Your task to perform on an android device: Go to network settings Image 0: 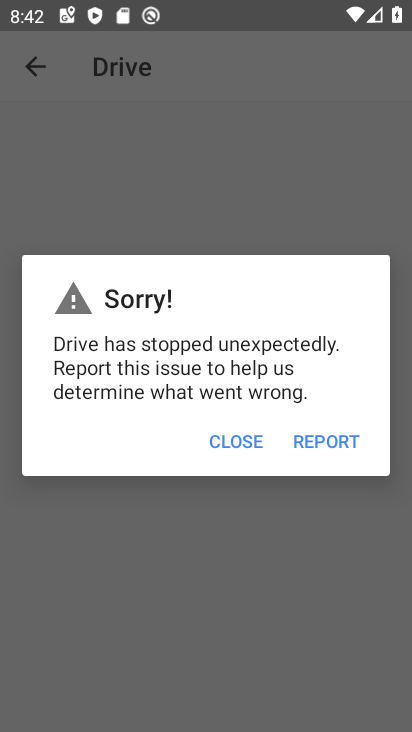
Step 0: press home button
Your task to perform on an android device: Go to network settings Image 1: 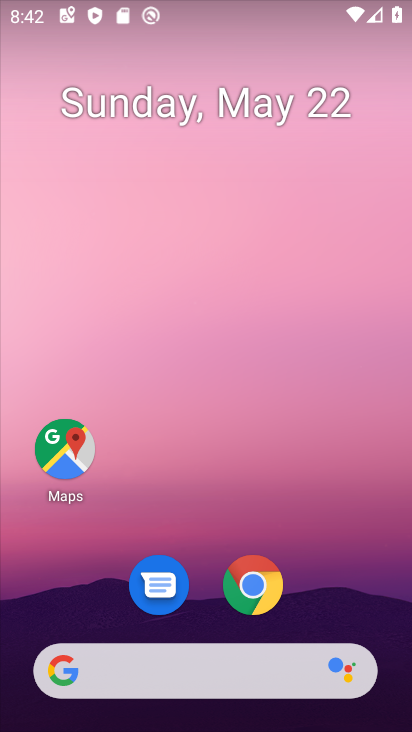
Step 1: drag from (240, 492) to (200, 17)
Your task to perform on an android device: Go to network settings Image 2: 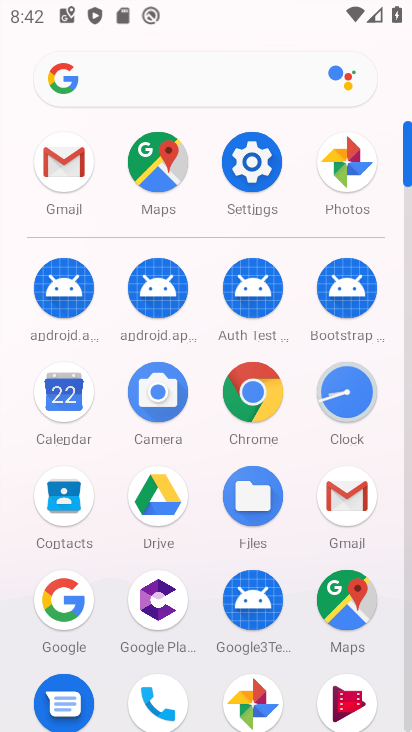
Step 2: click (249, 152)
Your task to perform on an android device: Go to network settings Image 3: 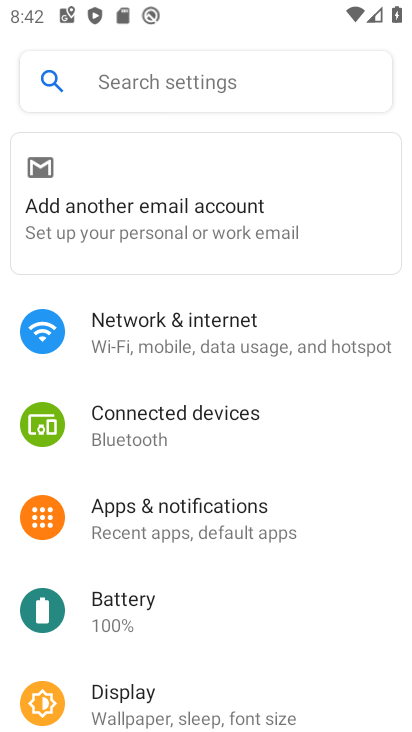
Step 3: click (208, 330)
Your task to perform on an android device: Go to network settings Image 4: 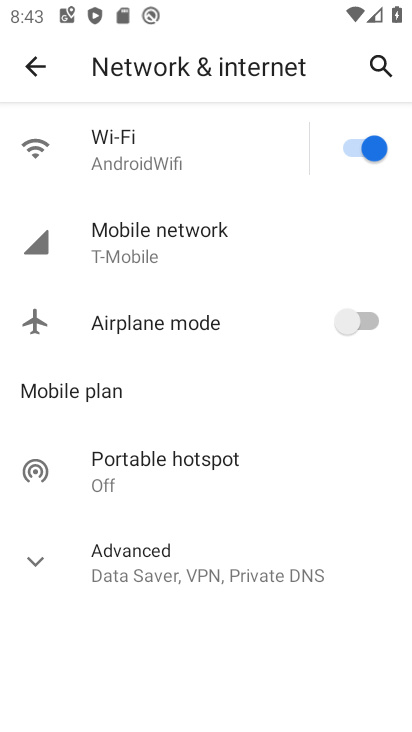
Step 4: task complete